Your task to perform on an android device: Play the latest video from the BBC Image 0: 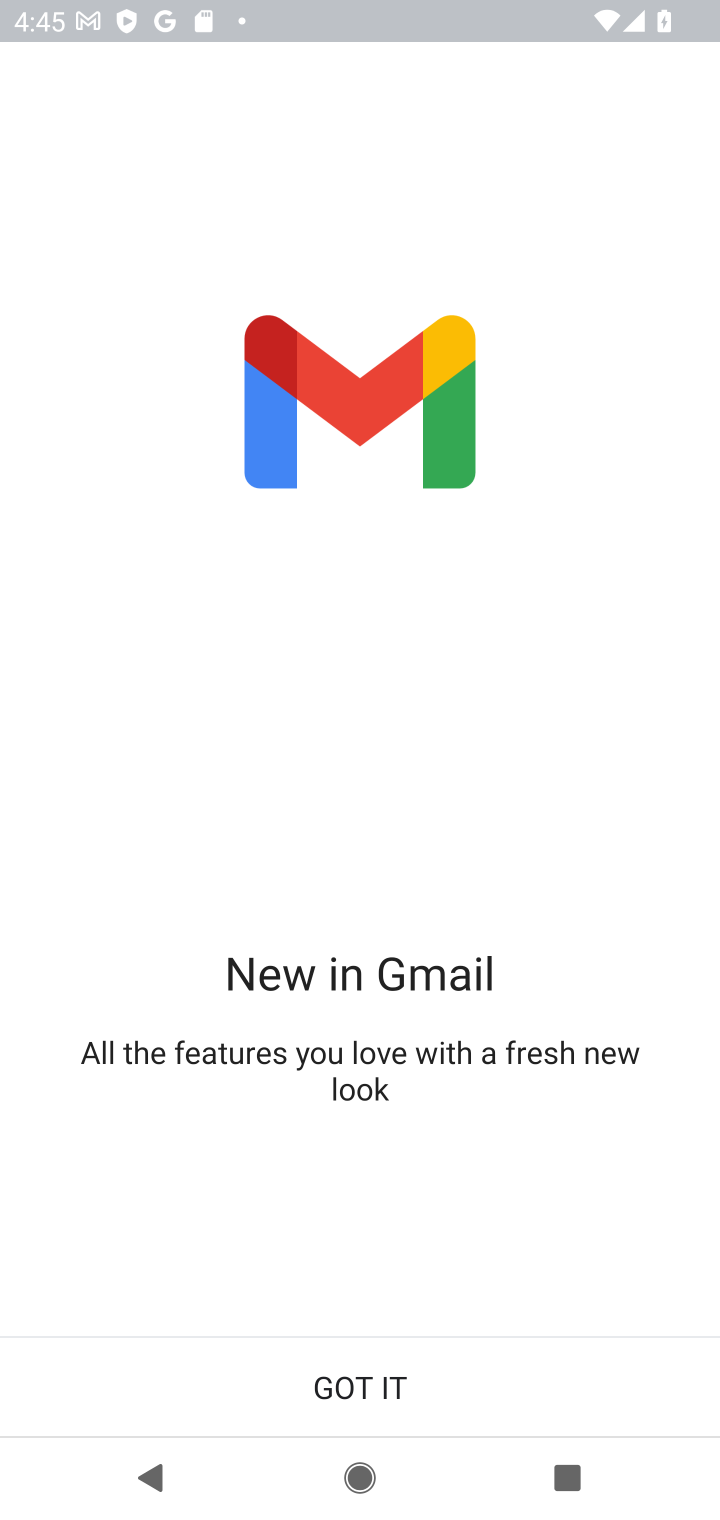
Step 0: press home button
Your task to perform on an android device: Play the latest video from the BBC Image 1: 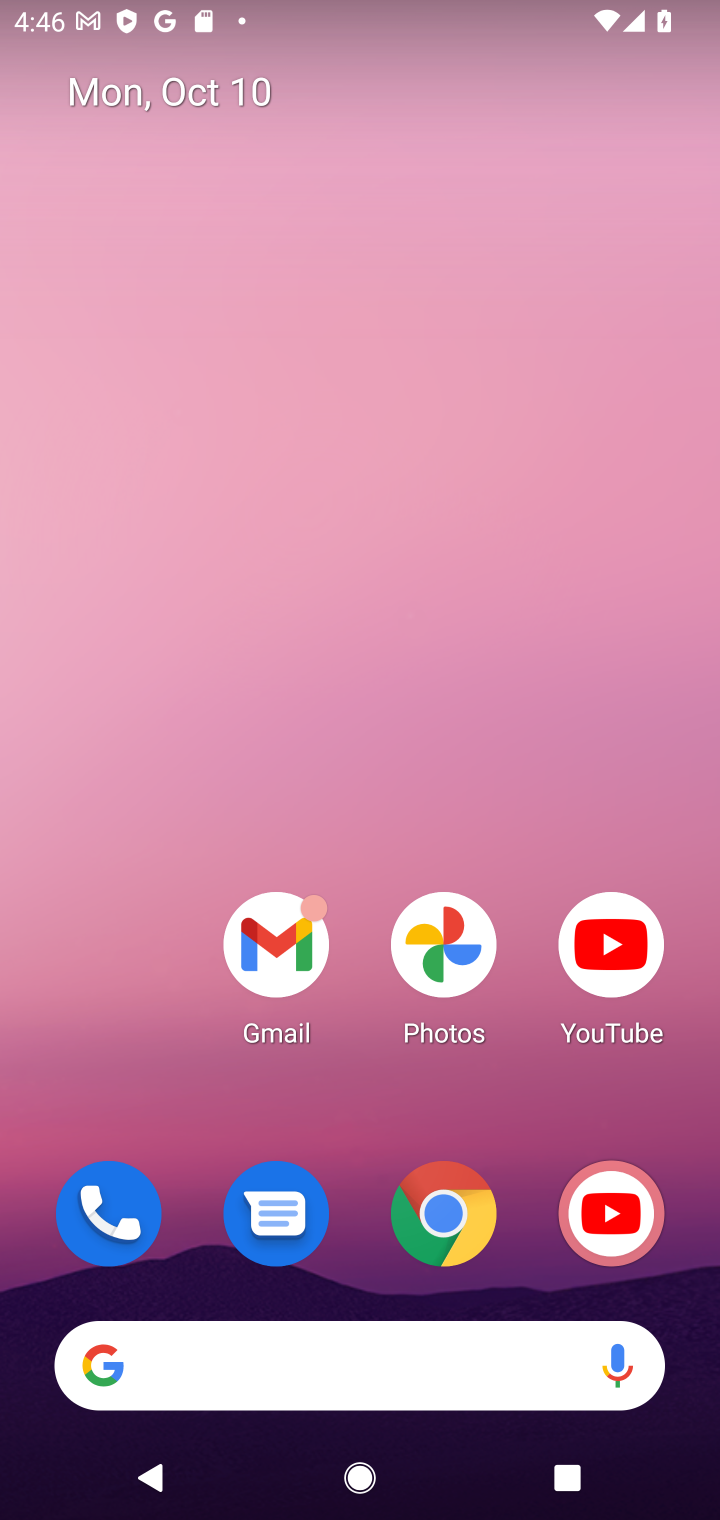
Step 1: click (611, 948)
Your task to perform on an android device: Play the latest video from the BBC Image 2: 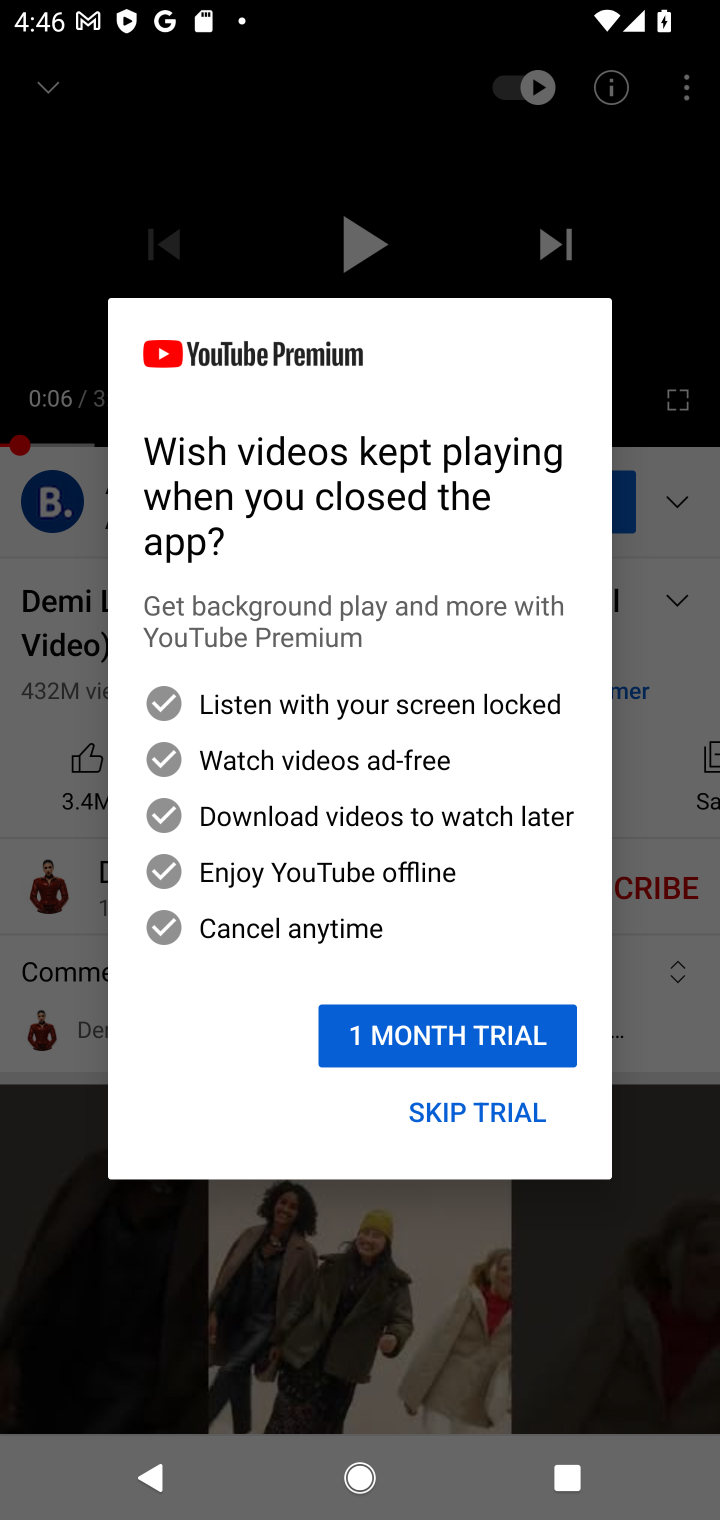
Step 2: click (459, 1105)
Your task to perform on an android device: Play the latest video from the BBC Image 3: 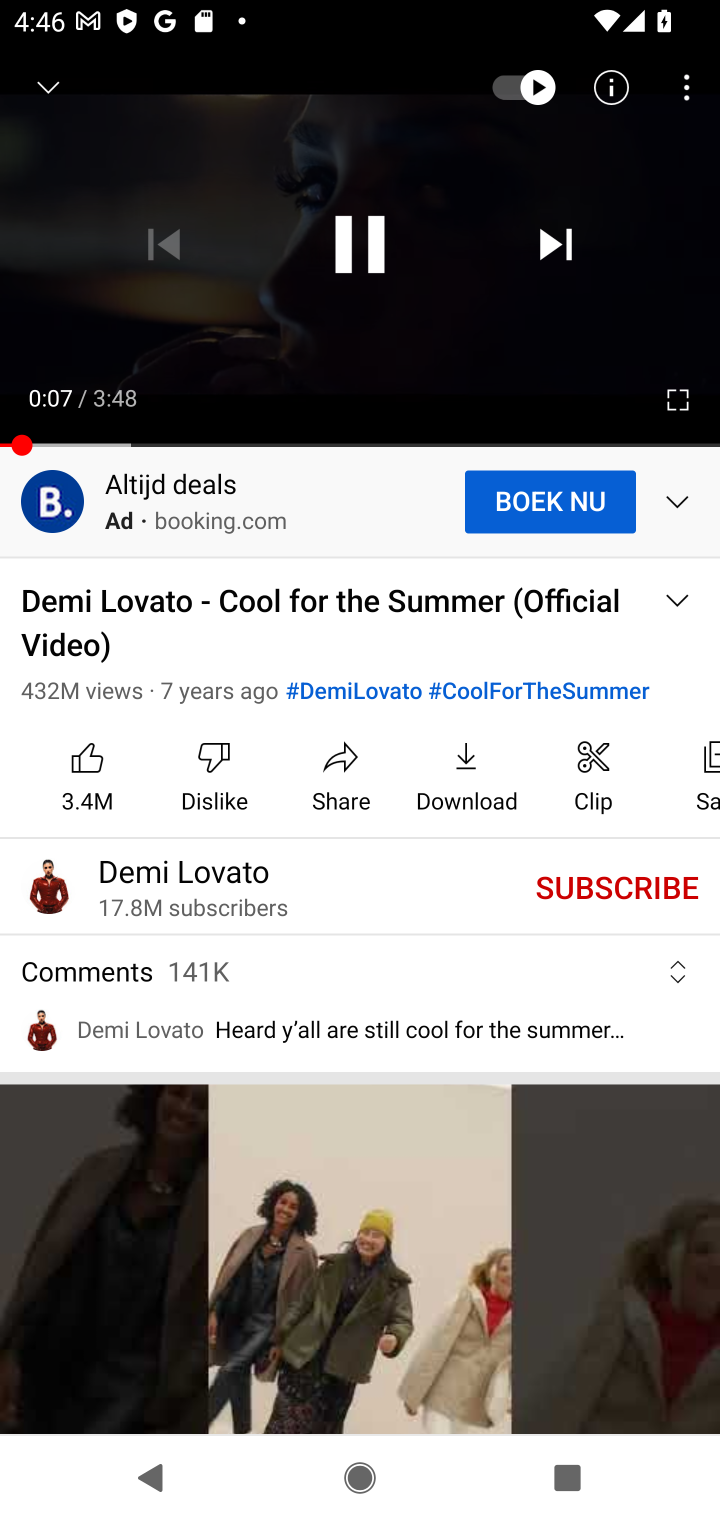
Step 3: drag from (353, 244) to (452, 1059)
Your task to perform on an android device: Play the latest video from the BBC Image 4: 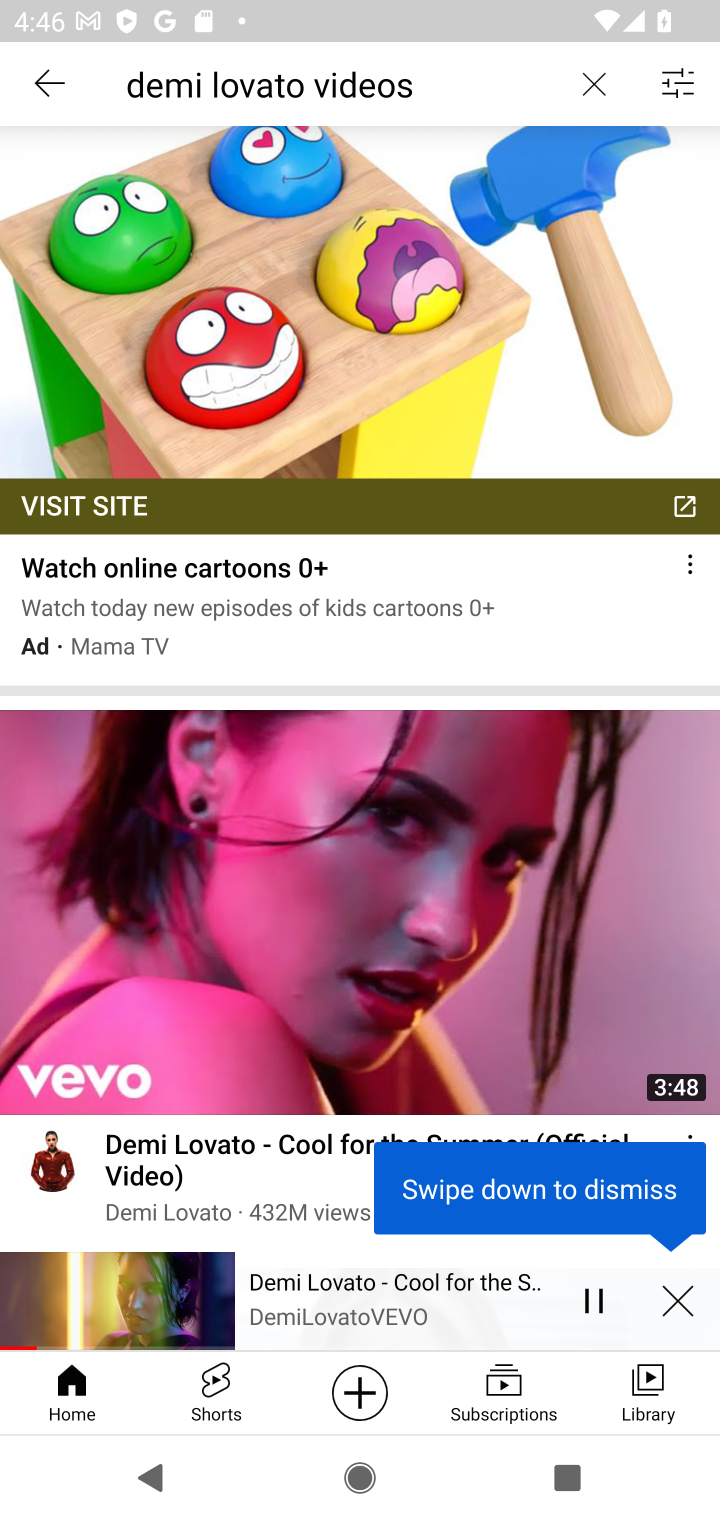
Step 4: click (677, 1305)
Your task to perform on an android device: Play the latest video from the BBC Image 5: 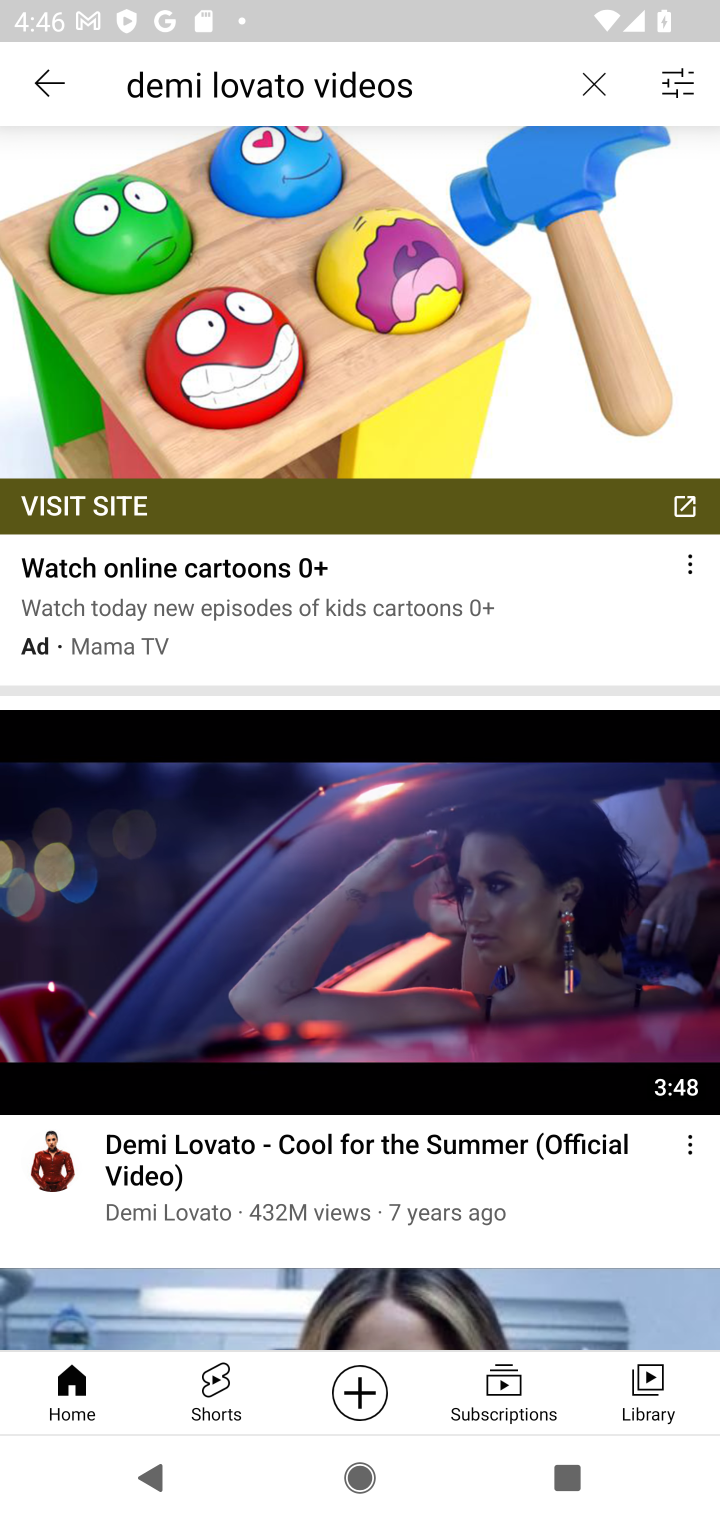
Step 5: click (588, 78)
Your task to perform on an android device: Play the latest video from the BBC Image 6: 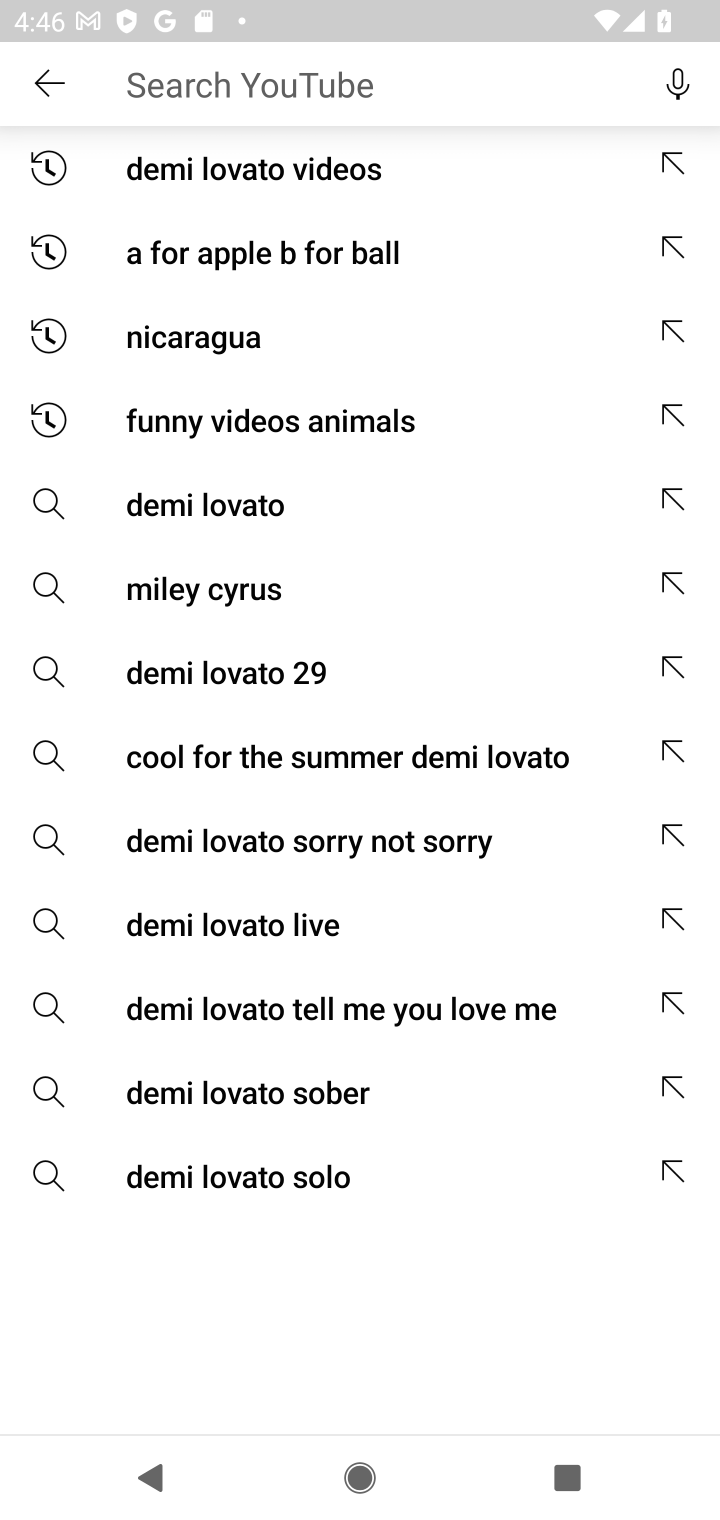
Step 6: type "latest video from the BBC"
Your task to perform on an android device: Play the latest video from the BBC Image 7: 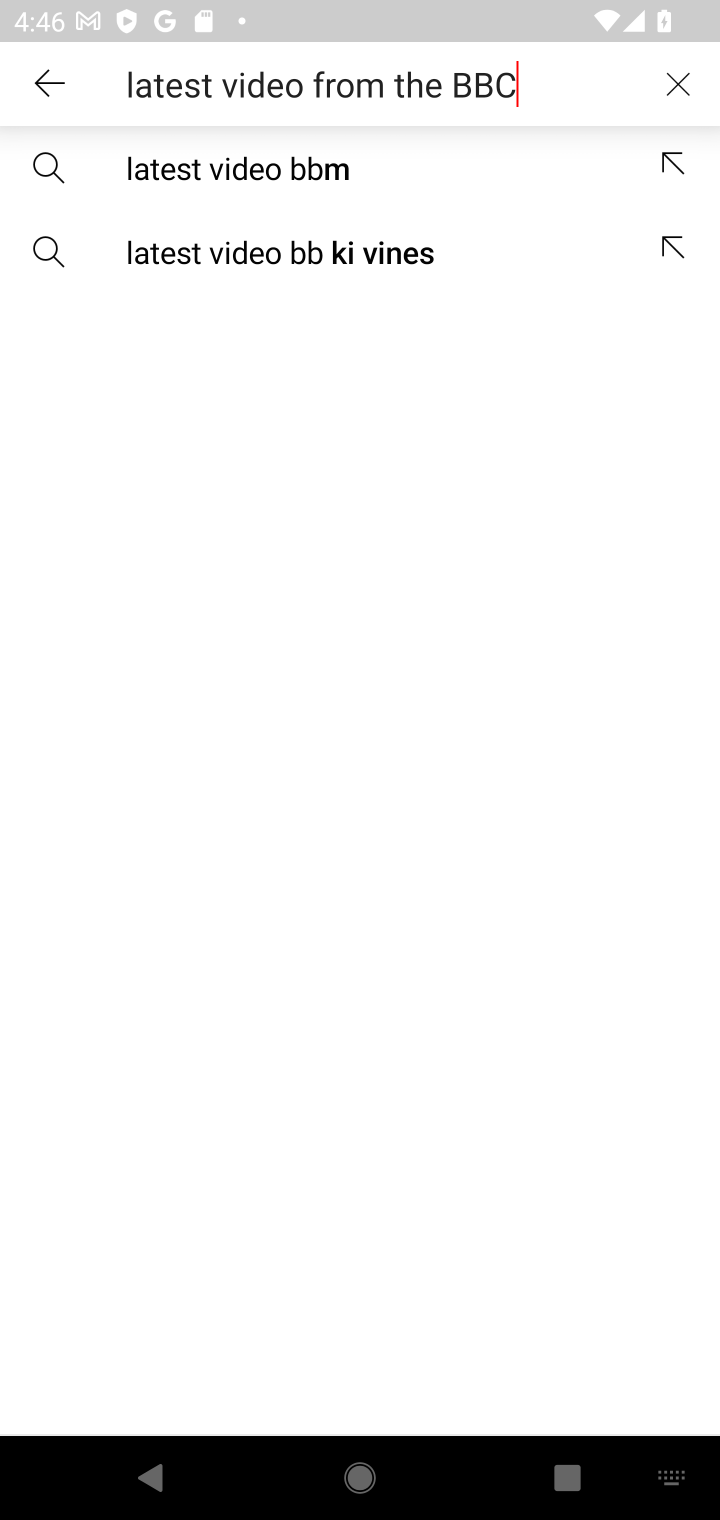
Step 7: type ""
Your task to perform on an android device: Play the latest video from the BBC Image 8: 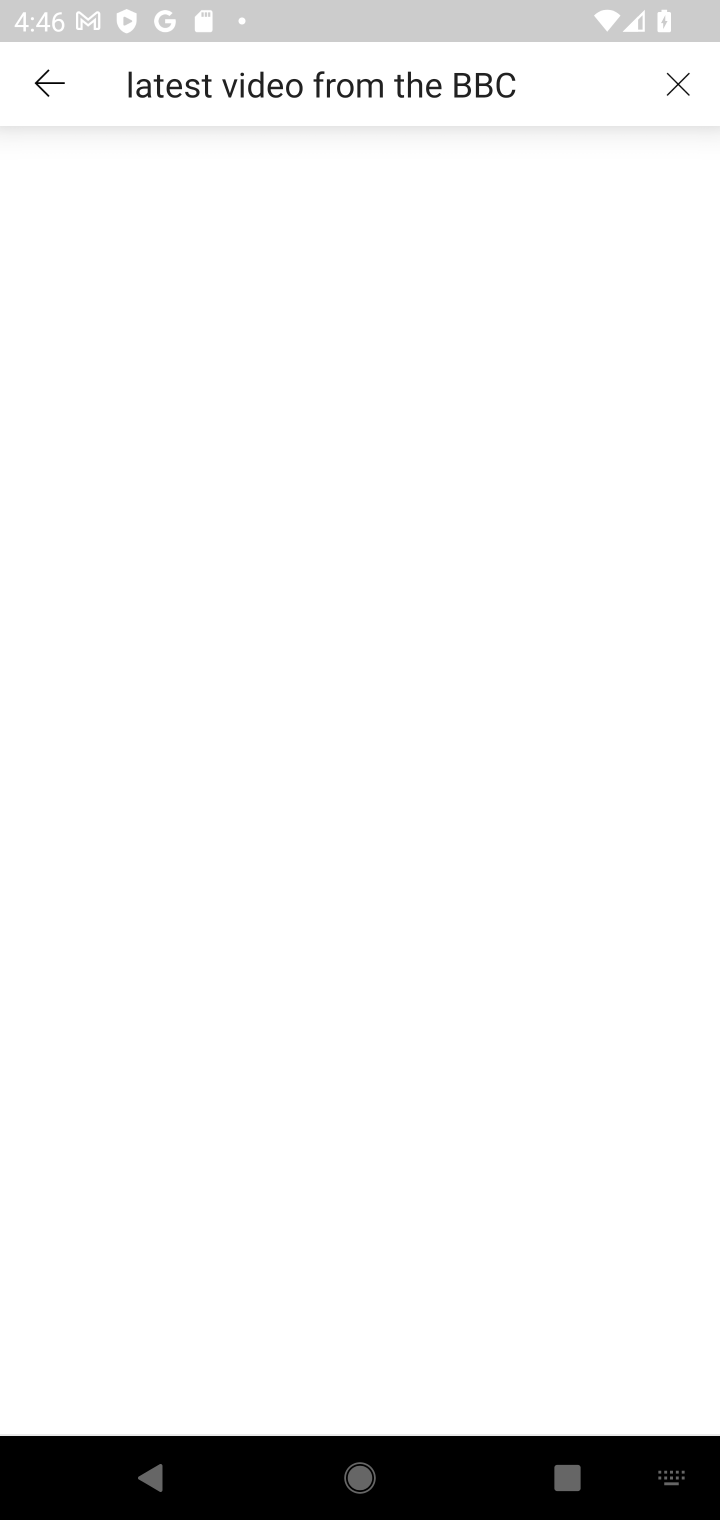
Step 8: task complete